Your task to perform on an android device: turn on location history Image 0: 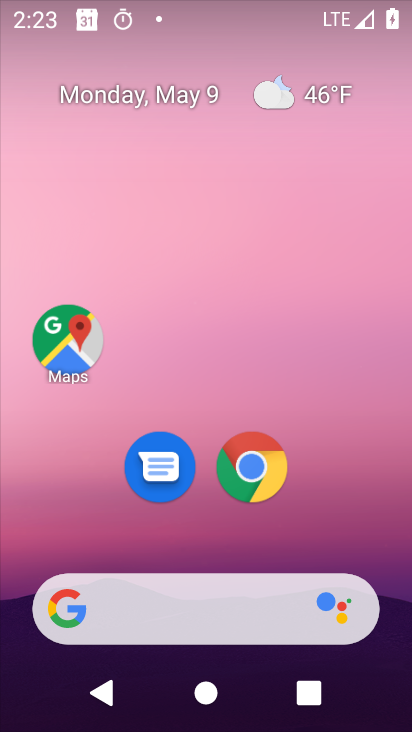
Step 0: drag from (310, 354) to (274, 18)
Your task to perform on an android device: turn on location history Image 1: 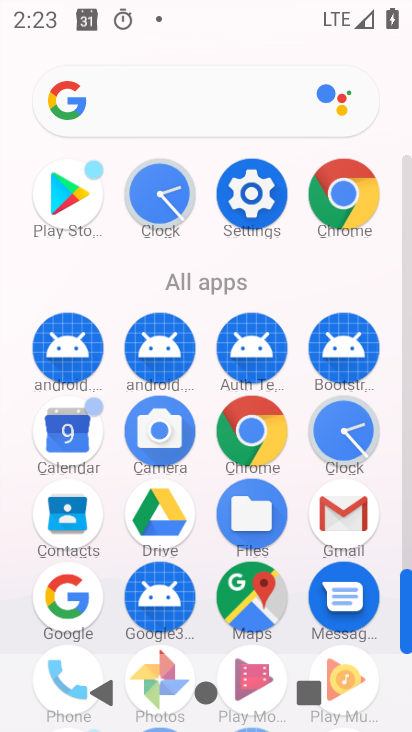
Step 1: click (248, 190)
Your task to perform on an android device: turn on location history Image 2: 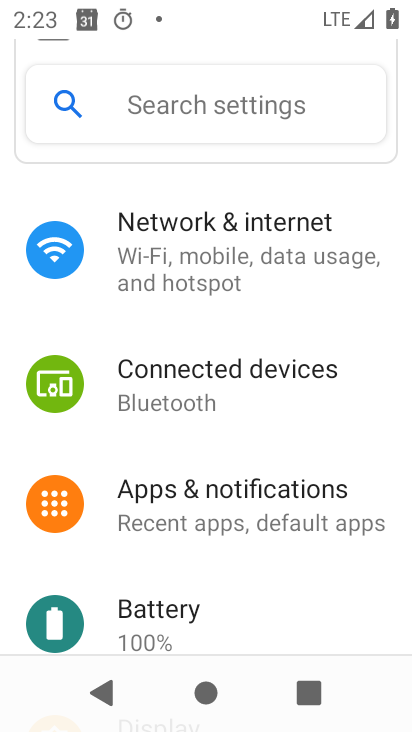
Step 2: drag from (212, 527) to (264, 1)
Your task to perform on an android device: turn on location history Image 3: 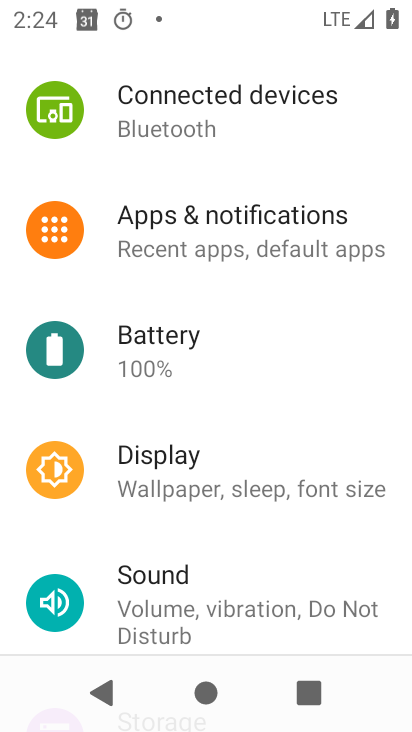
Step 3: drag from (148, 580) to (176, 172)
Your task to perform on an android device: turn on location history Image 4: 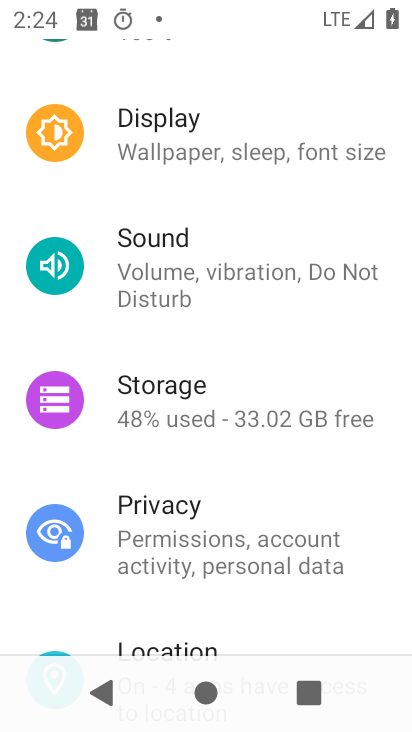
Step 4: drag from (247, 535) to (259, 149)
Your task to perform on an android device: turn on location history Image 5: 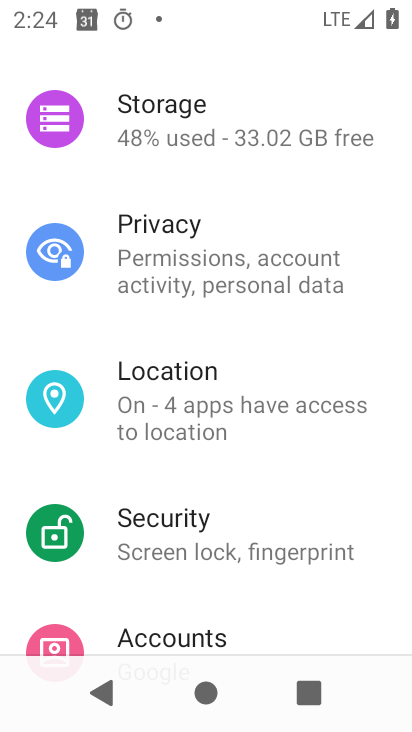
Step 5: click (185, 390)
Your task to perform on an android device: turn on location history Image 6: 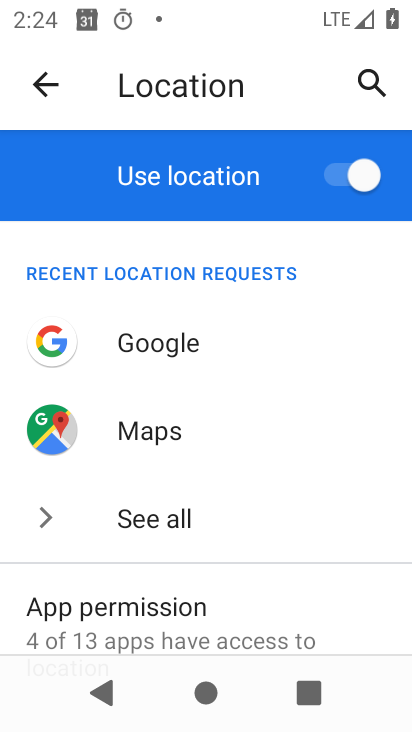
Step 6: drag from (274, 550) to (271, 131)
Your task to perform on an android device: turn on location history Image 7: 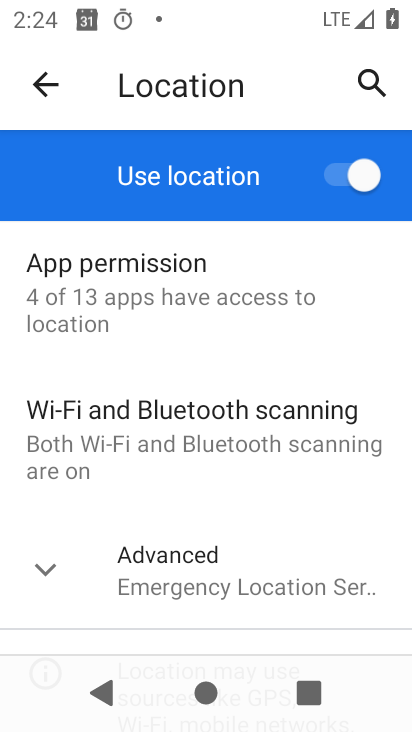
Step 7: click (225, 561)
Your task to perform on an android device: turn on location history Image 8: 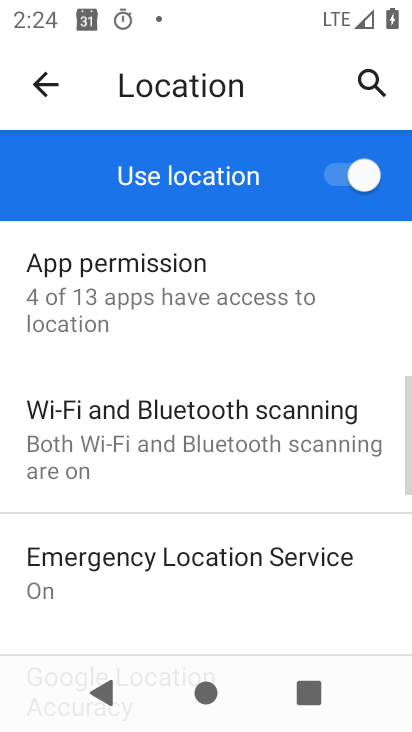
Step 8: drag from (214, 559) to (228, 72)
Your task to perform on an android device: turn on location history Image 9: 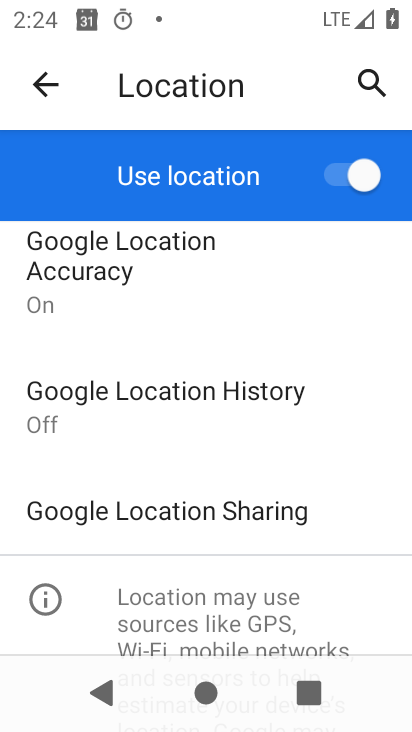
Step 9: click (241, 389)
Your task to perform on an android device: turn on location history Image 10: 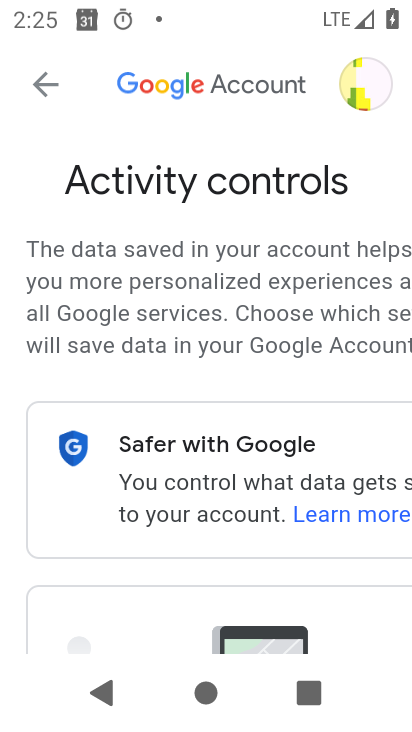
Step 10: task complete